Your task to perform on an android device: open app "DoorDash - Food Delivery" Image 0: 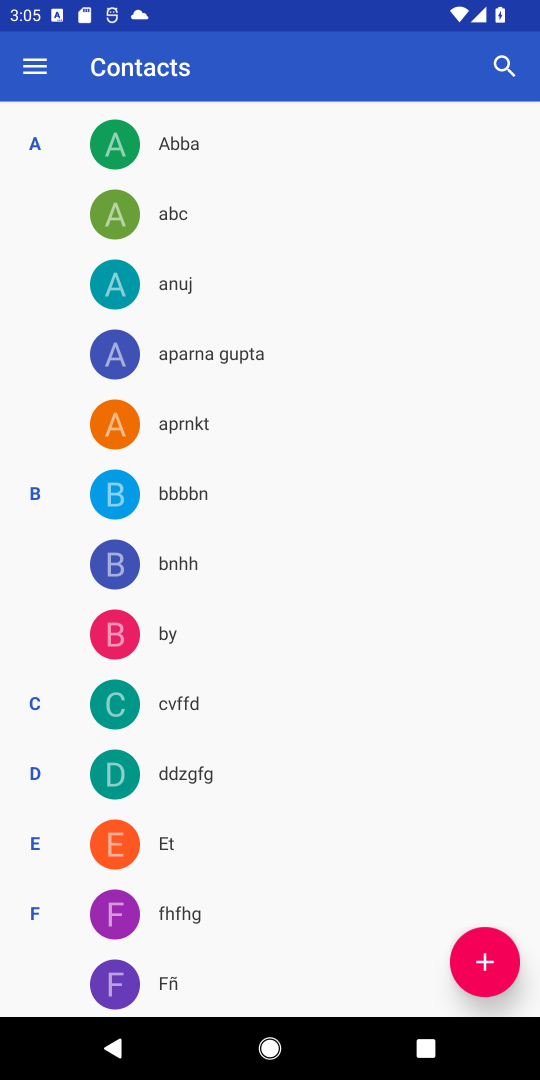
Step 0: press home button
Your task to perform on an android device: open app "DoorDash - Food Delivery" Image 1: 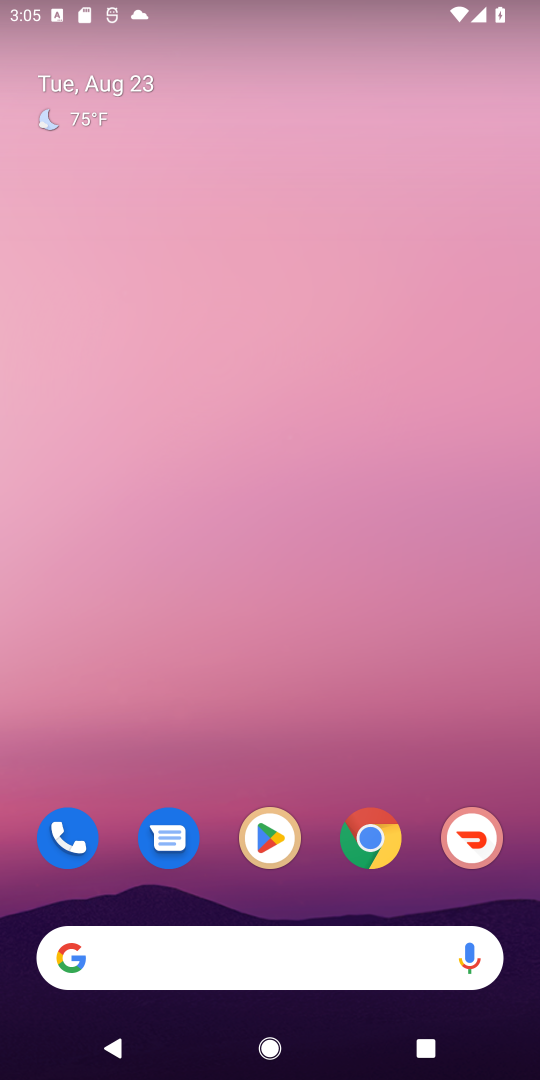
Step 1: click (286, 839)
Your task to perform on an android device: open app "DoorDash - Food Delivery" Image 2: 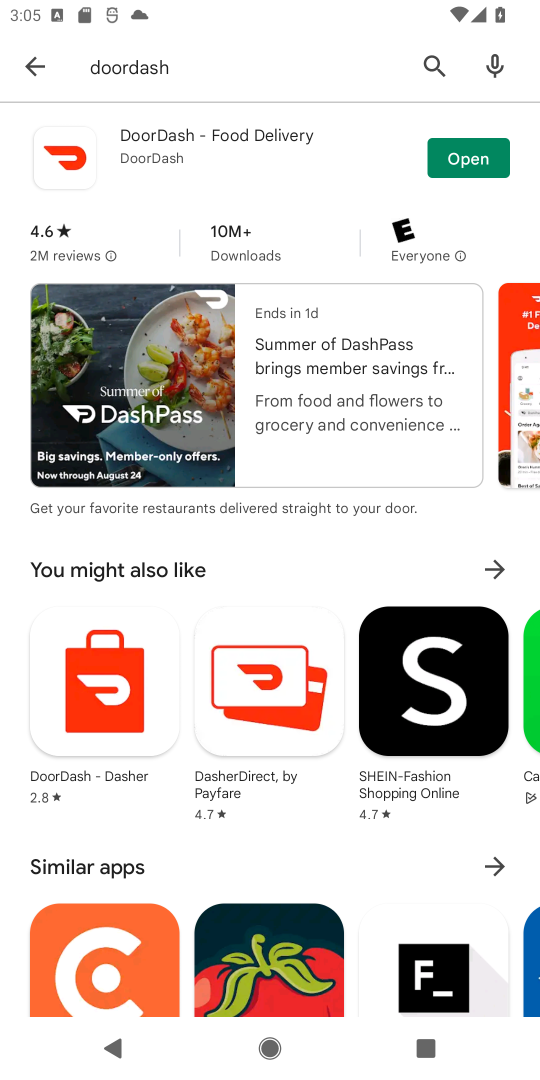
Step 2: click (441, 149)
Your task to perform on an android device: open app "DoorDash - Food Delivery" Image 3: 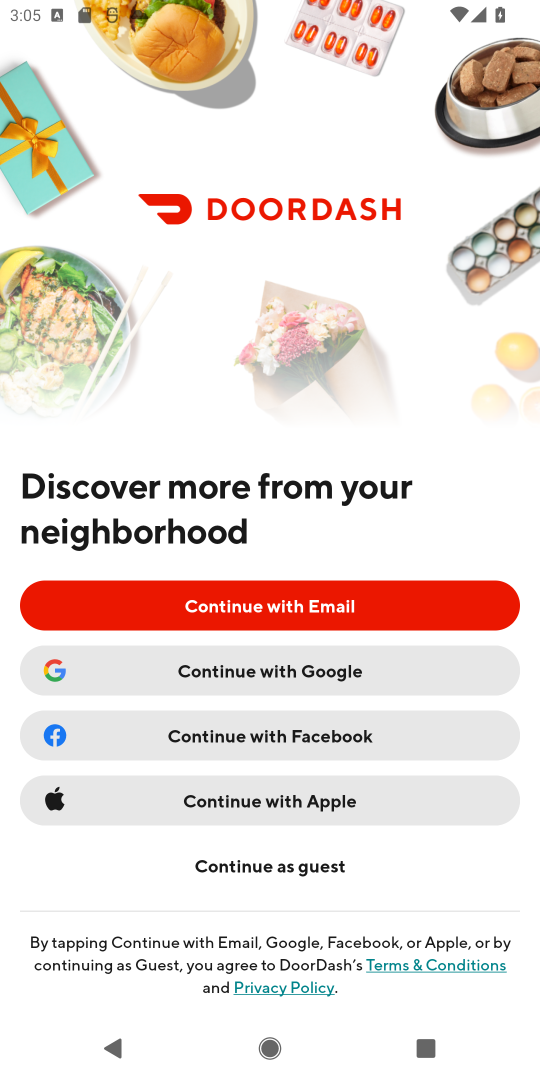
Step 3: task complete